Your task to perform on an android device: Go to battery settings Image 0: 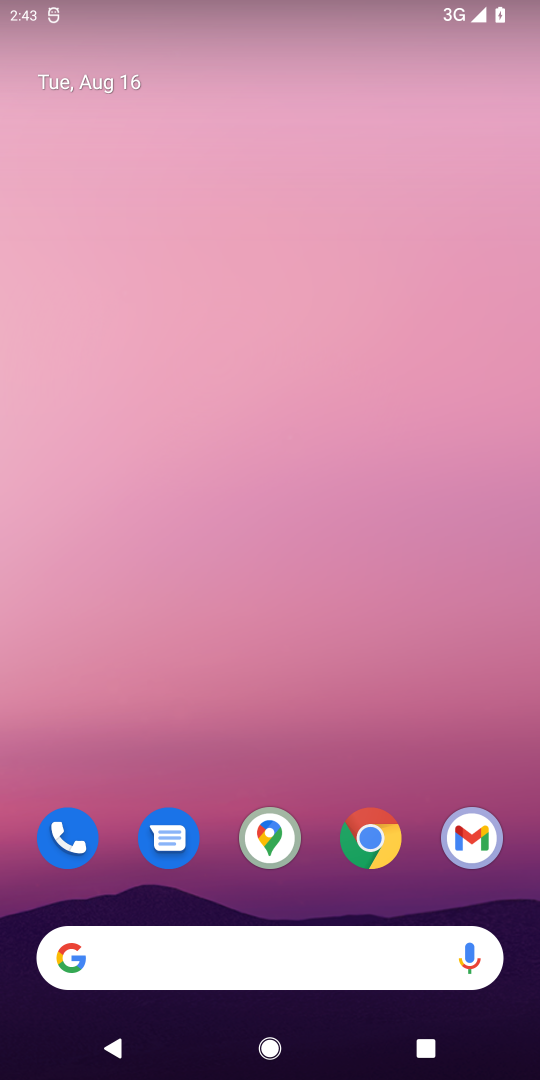
Step 0: drag from (235, 749) to (204, 89)
Your task to perform on an android device: Go to battery settings Image 1: 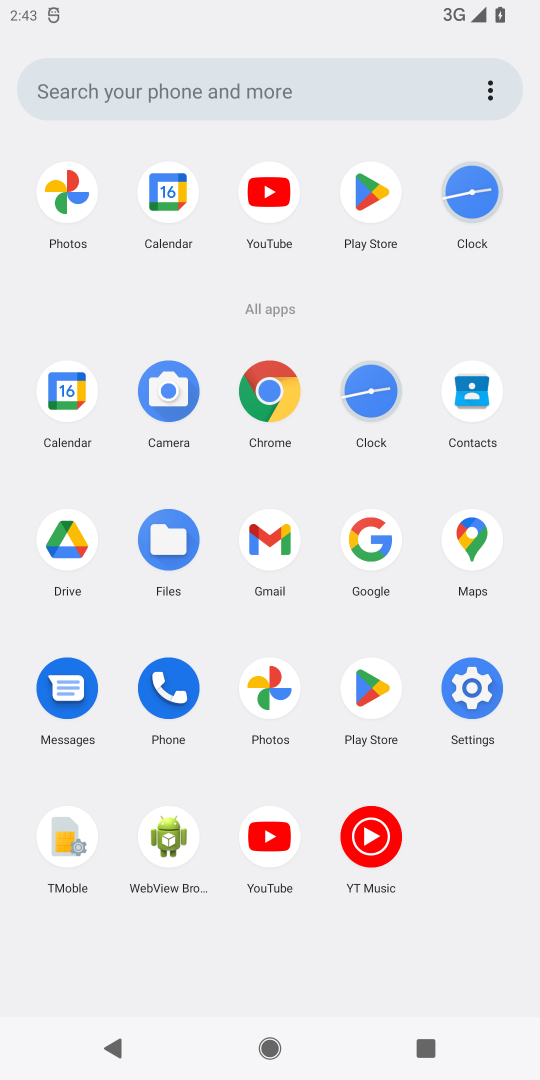
Step 1: click (457, 702)
Your task to perform on an android device: Go to battery settings Image 2: 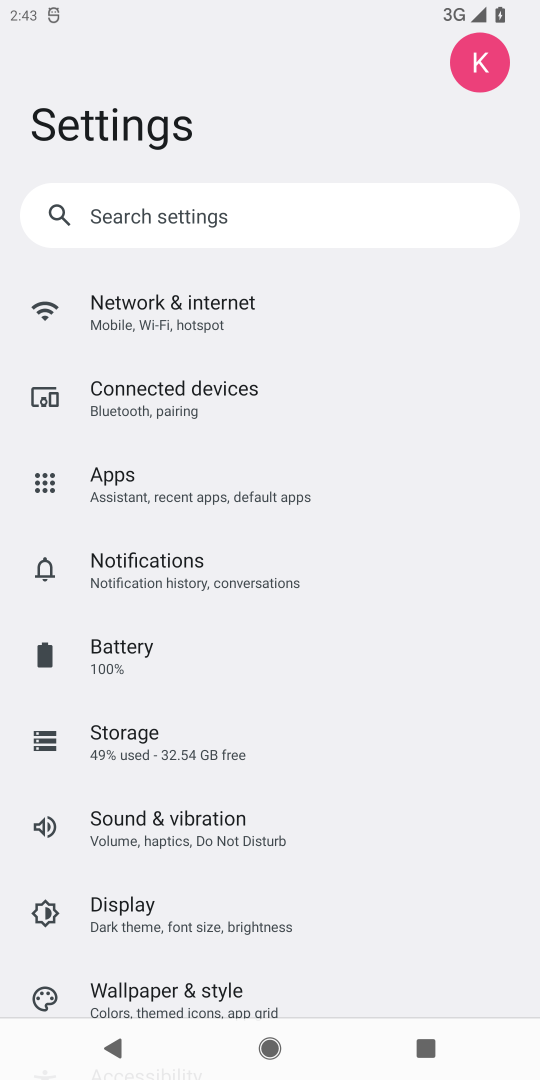
Step 2: click (162, 657)
Your task to perform on an android device: Go to battery settings Image 3: 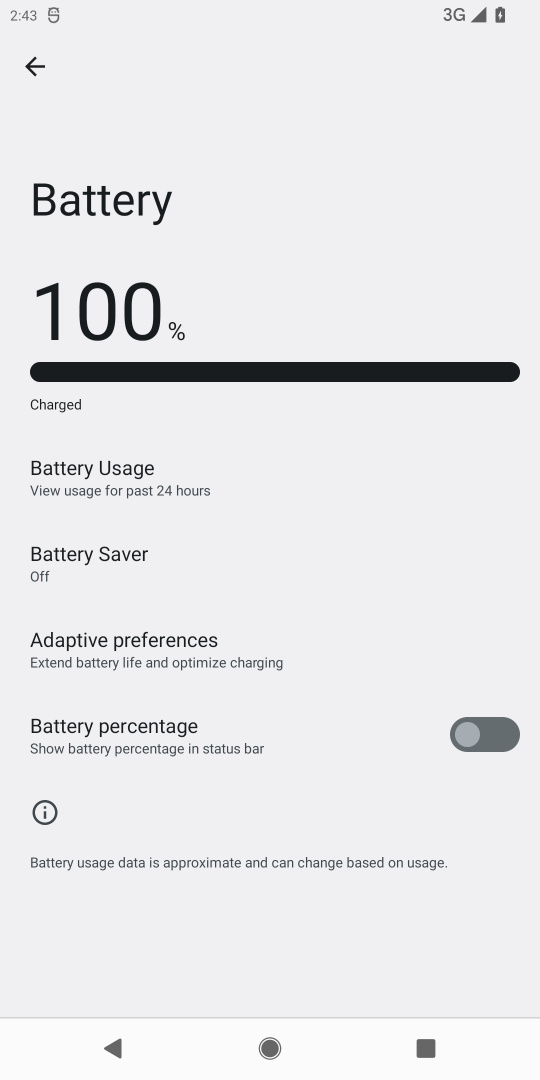
Step 3: task complete